Your task to perform on an android device: check storage Image 0: 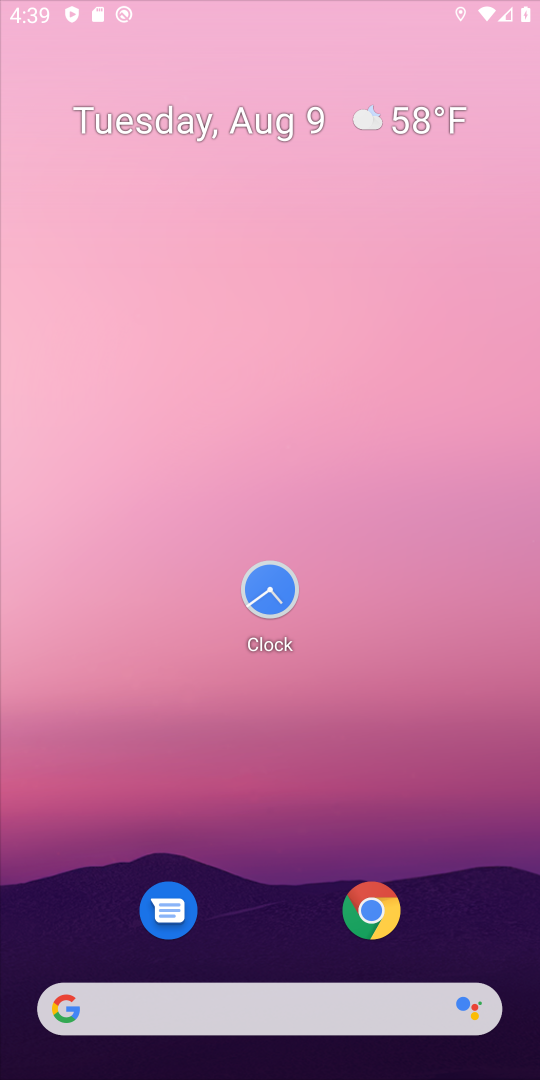
Step 0: click (24, 65)
Your task to perform on an android device: check storage Image 1: 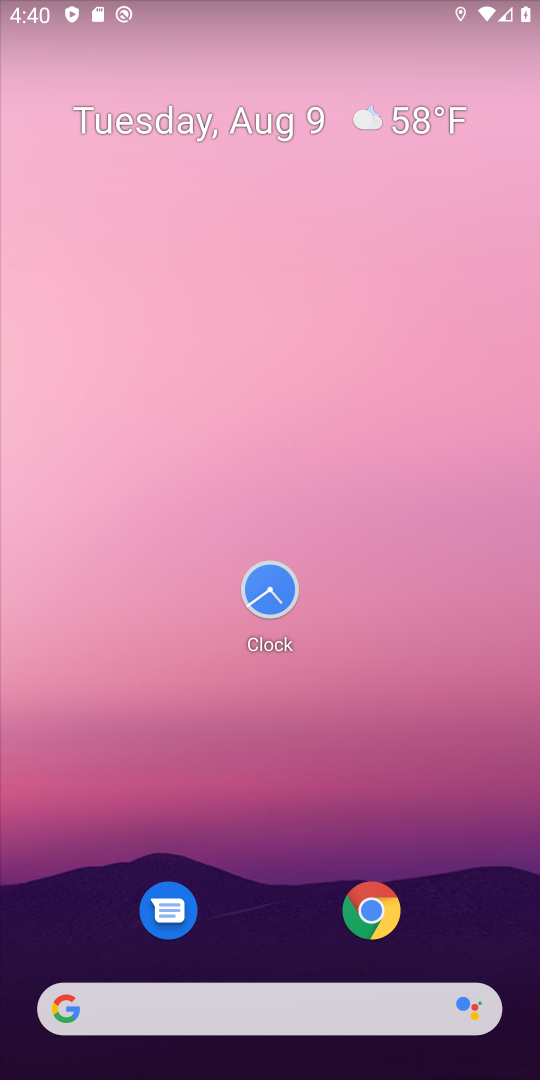
Step 1: drag from (213, 956) to (150, 268)
Your task to perform on an android device: check storage Image 2: 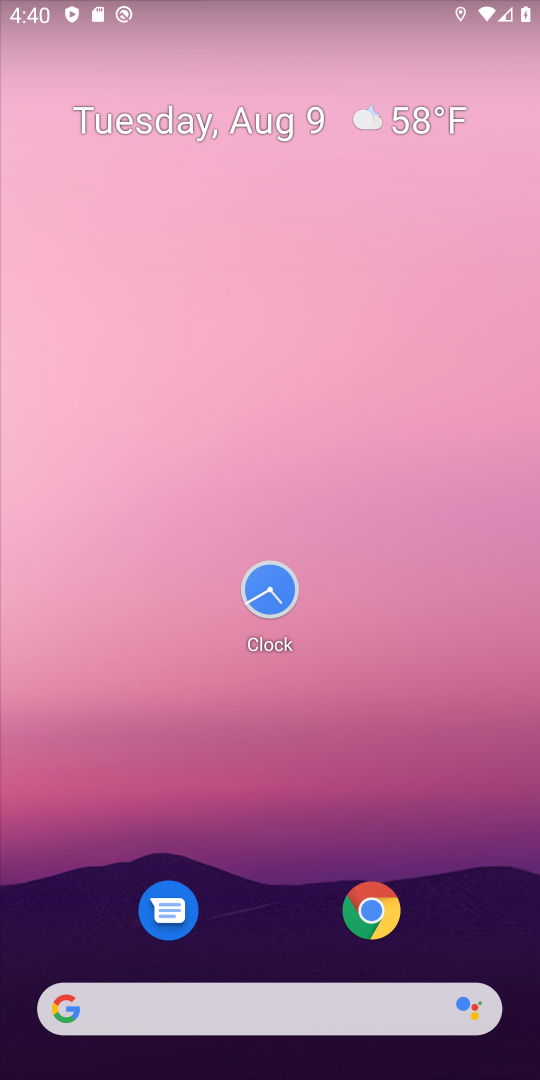
Step 2: drag from (286, 988) to (175, 326)
Your task to perform on an android device: check storage Image 3: 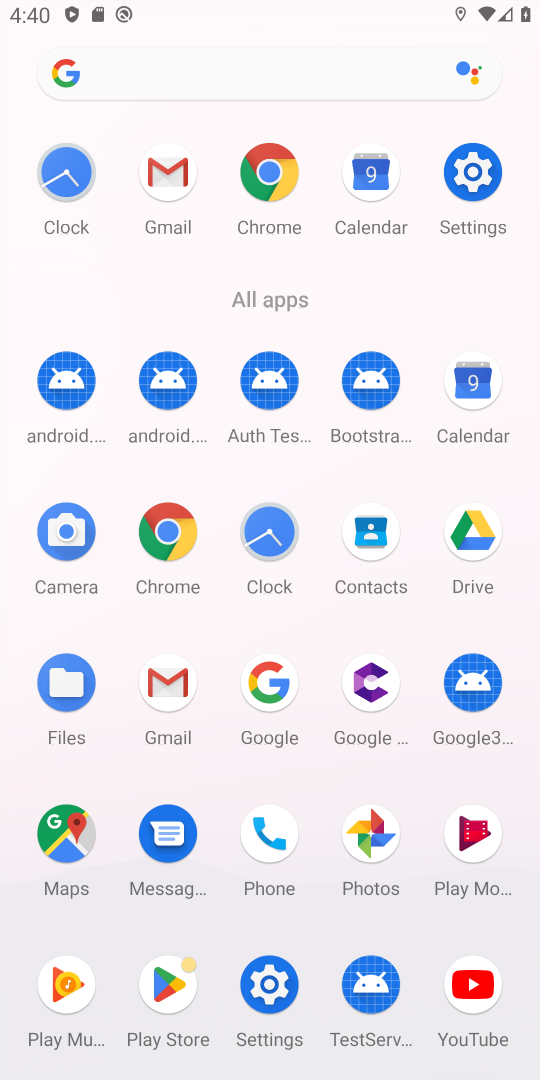
Step 3: click (471, 175)
Your task to perform on an android device: check storage Image 4: 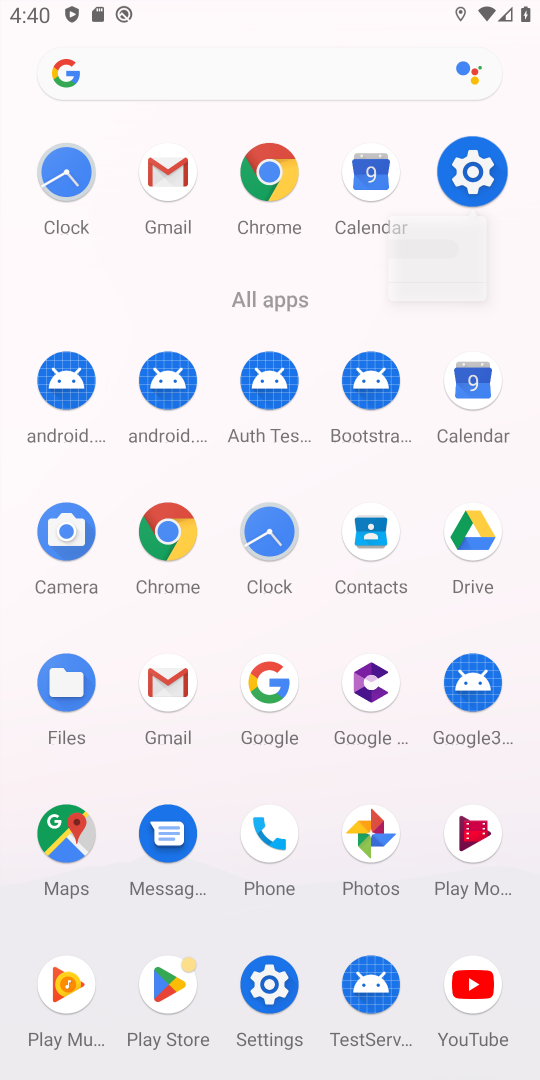
Step 4: click (470, 173)
Your task to perform on an android device: check storage Image 5: 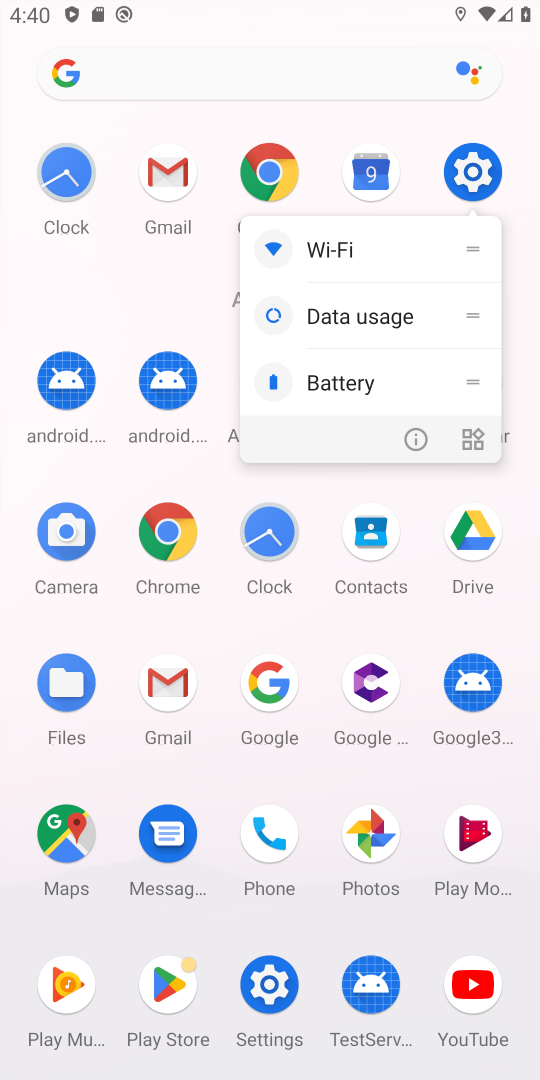
Step 5: click (370, 321)
Your task to perform on an android device: check storage Image 6: 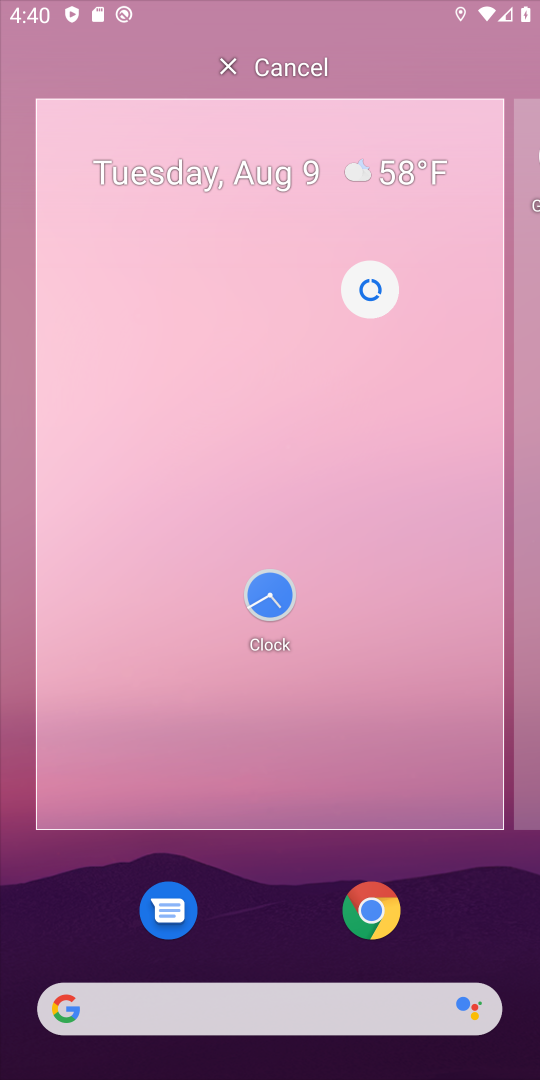
Step 6: click (370, 321)
Your task to perform on an android device: check storage Image 7: 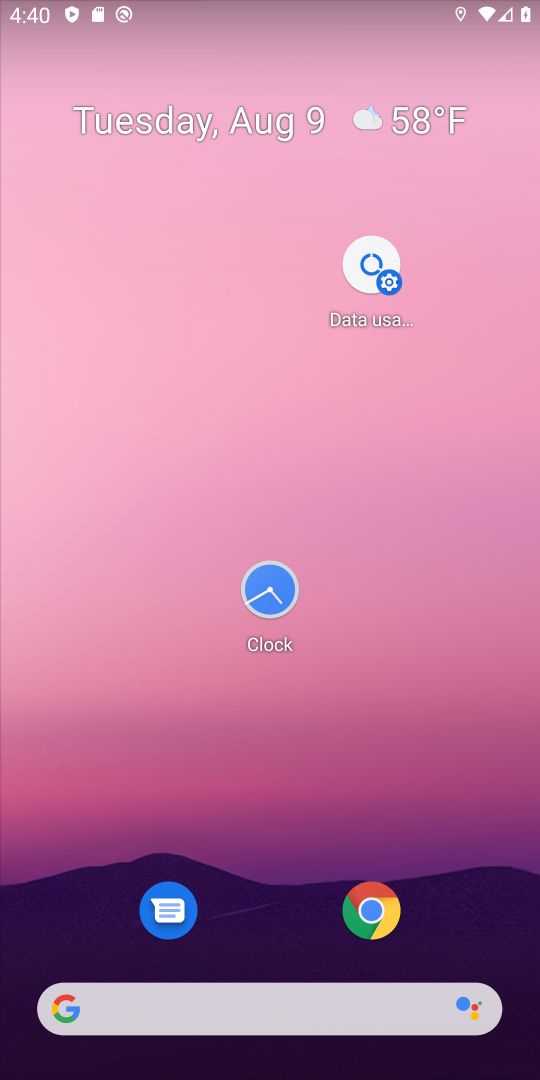
Step 7: task complete